Your task to perform on an android device: open the mobile data screen to see how much data has been used Image 0: 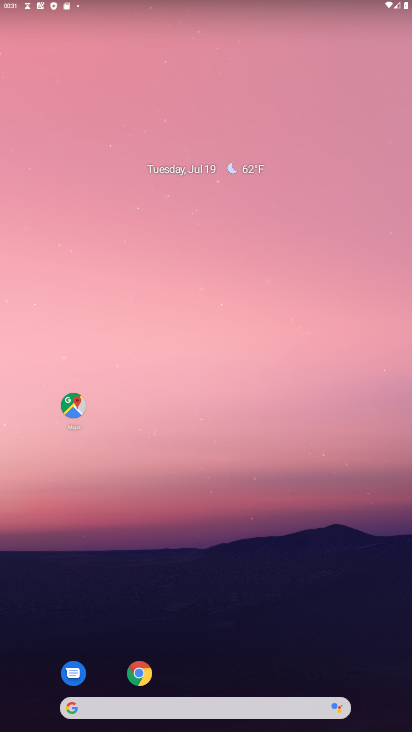
Step 0: drag from (312, 620) to (267, 253)
Your task to perform on an android device: open the mobile data screen to see how much data has been used Image 1: 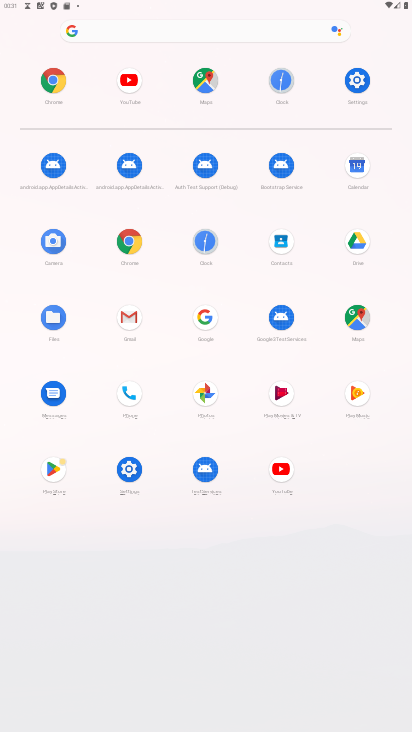
Step 1: click (365, 79)
Your task to perform on an android device: open the mobile data screen to see how much data has been used Image 2: 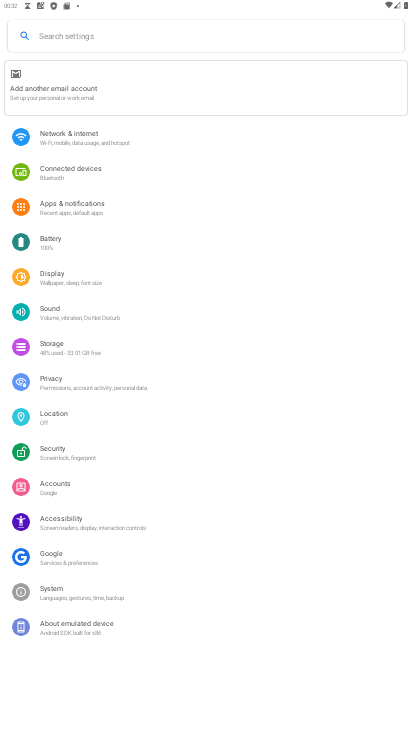
Step 2: click (79, 149)
Your task to perform on an android device: open the mobile data screen to see how much data has been used Image 3: 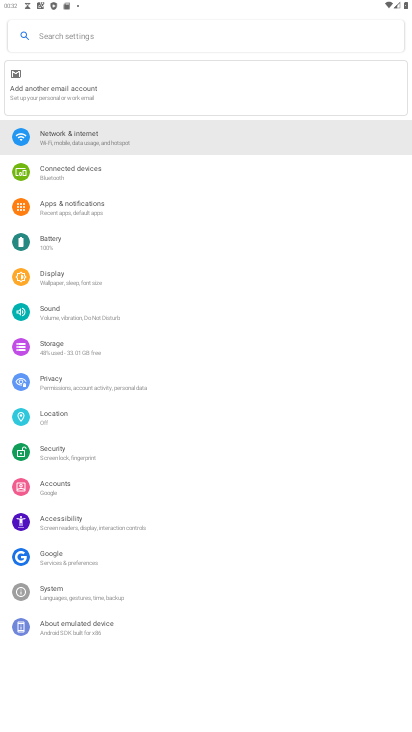
Step 3: click (79, 147)
Your task to perform on an android device: open the mobile data screen to see how much data has been used Image 4: 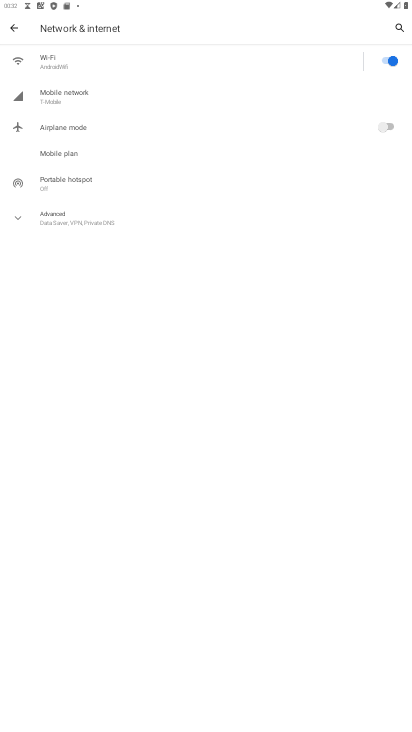
Step 4: click (79, 95)
Your task to perform on an android device: open the mobile data screen to see how much data has been used Image 5: 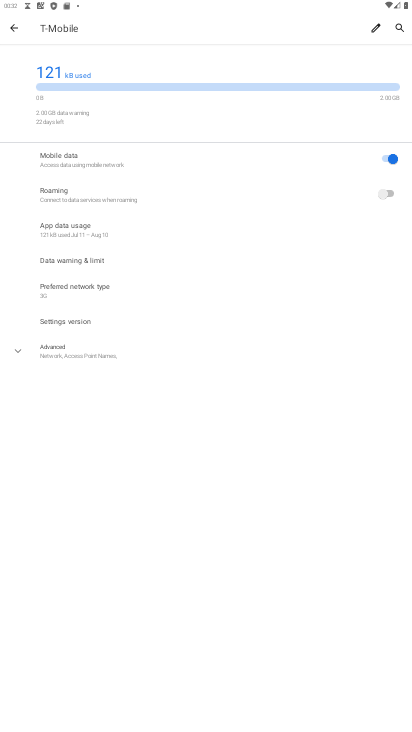
Step 5: task complete